Your task to perform on an android device: read, delete, or share a saved page in the chrome app Image 0: 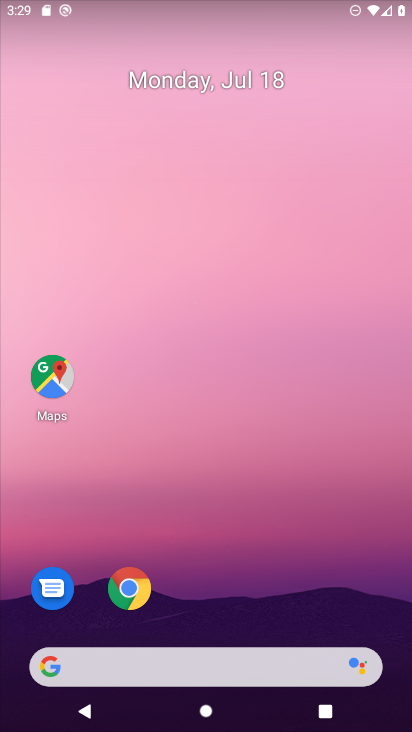
Step 0: click (129, 583)
Your task to perform on an android device: read, delete, or share a saved page in the chrome app Image 1: 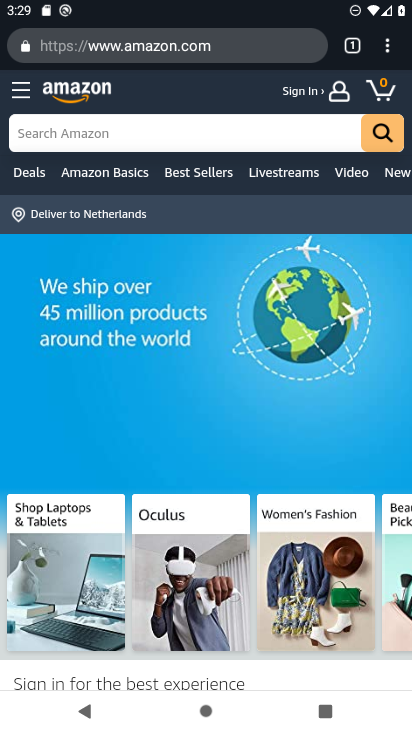
Step 1: click (391, 43)
Your task to perform on an android device: read, delete, or share a saved page in the chrome app Image 2: 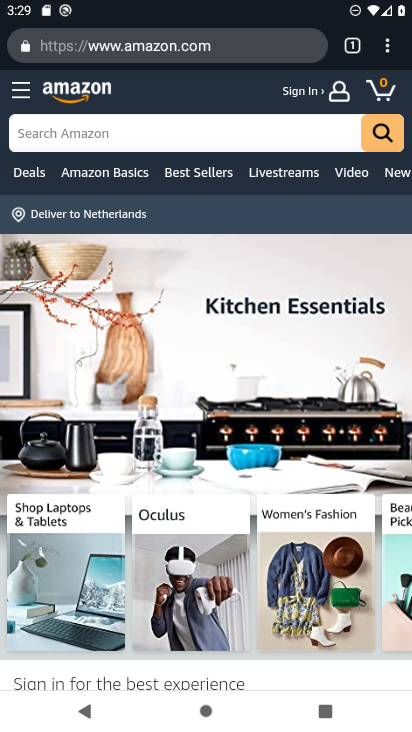
Step 2: click (392, 40)
Your task to perform on an android device: read, delete, or share a saved page in the chrome app Image 3: 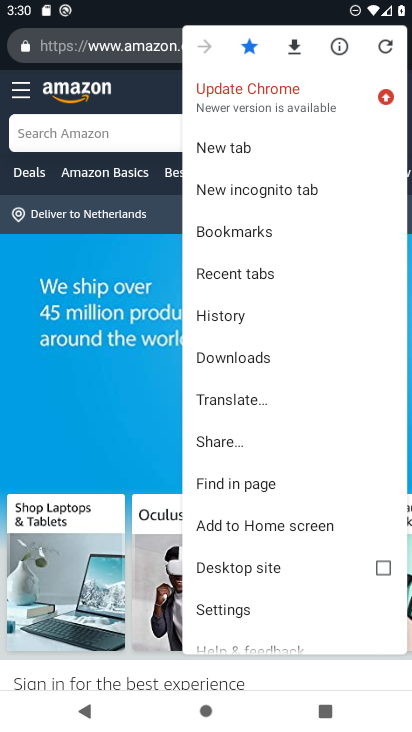
Step 3: click (269, 359)
Your task to perform on an android device: read, delete, or share a saved page in the chrome app Image 4: 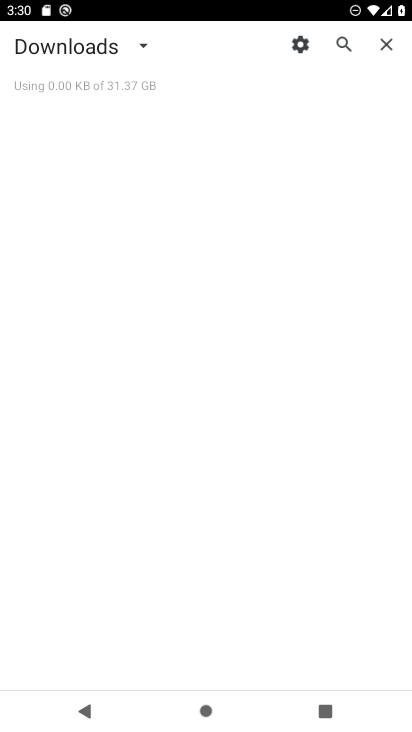
Step 4: task complete